Your task to perform on an android device: Go to calendar. Show me events next week Image 0: 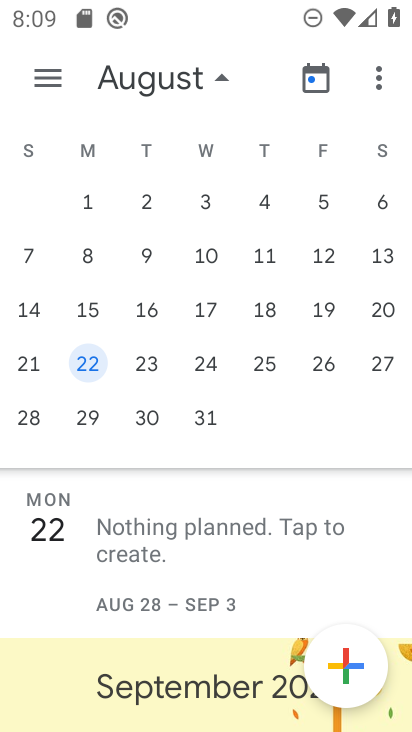
Step 0: drag from (76, 304) to (410, 299)
Your task to perform on an android device: Go to calendar. Show me events next week Image 1: 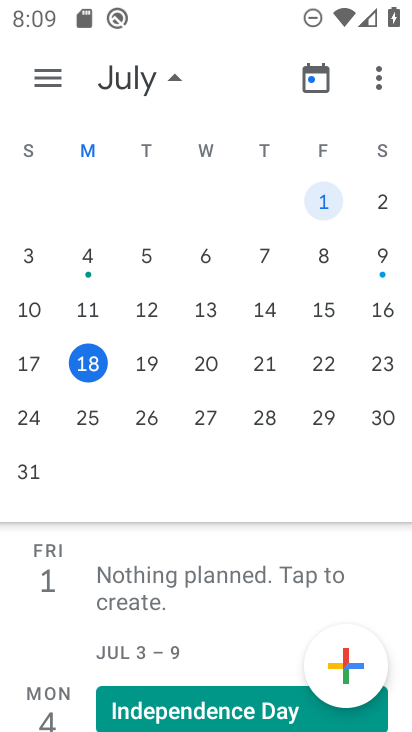
Step 1: click (90, 412)
Your task to perform on an android device: Go to calendar. Show me events next week Image 2: 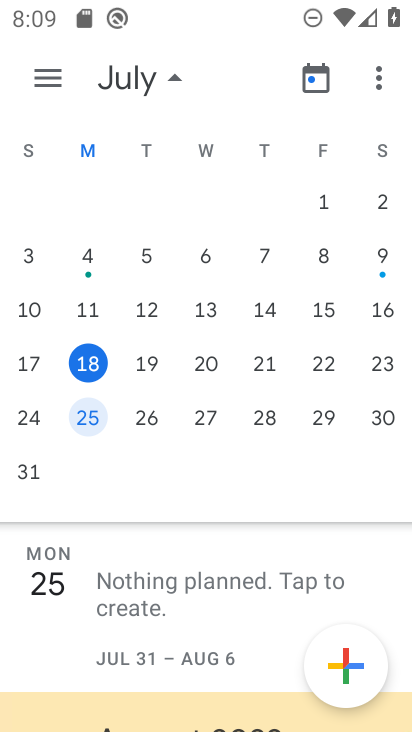
Step 2: task complete